Your task to perform on an android device: Open Wikipedia Image 0: 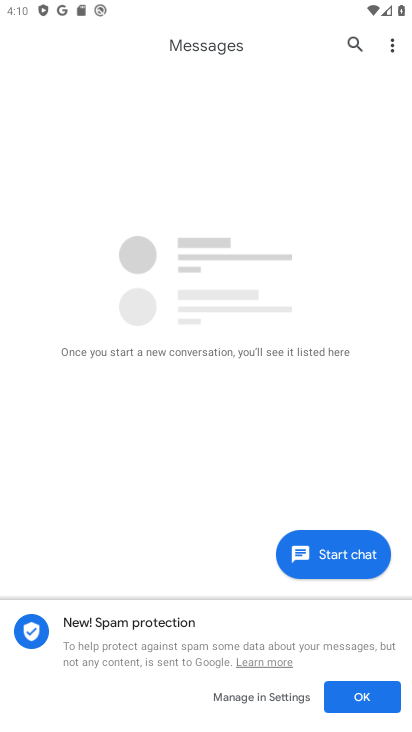
Step 0: press home button
Your task to perform on an android device: Open Wikipedia Image 1: 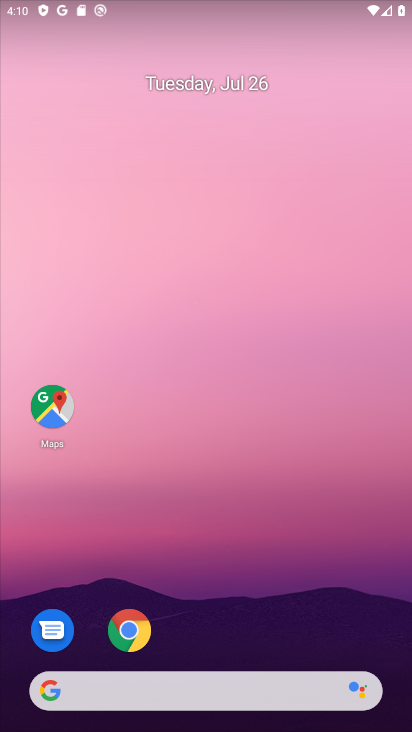
Step 1: drag from (292, 428) to (305, 12)
Your task to perform on an android device: Open Wikipedia Image 2: 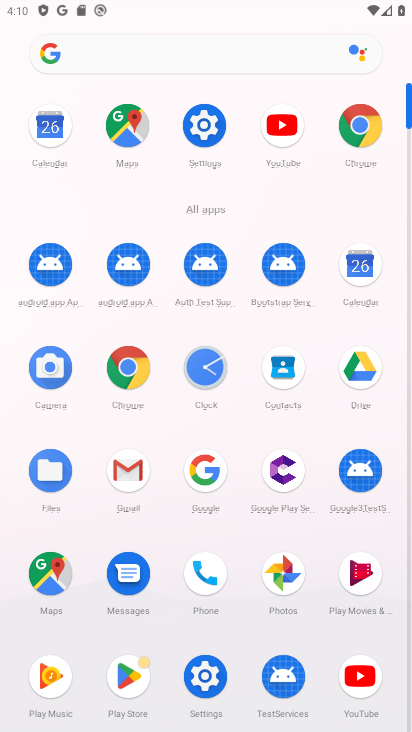
Step 2: click (357, 125)
Your task to perform on an android device: Open Wikipedia Image 3: 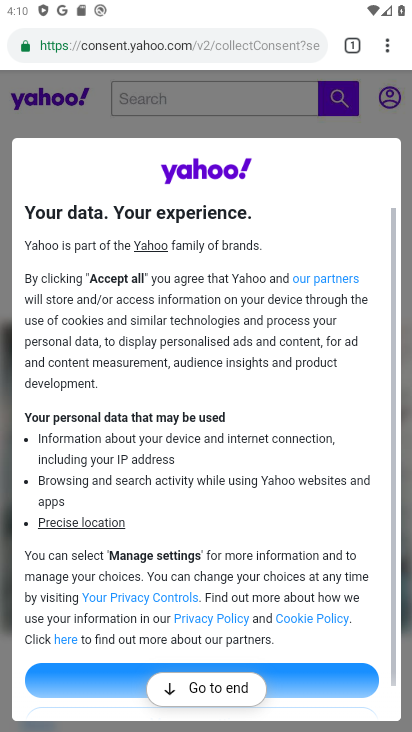
Step 3: click (240, 54)
Your task to perform on an android device: Open Wikipedia Image 4: 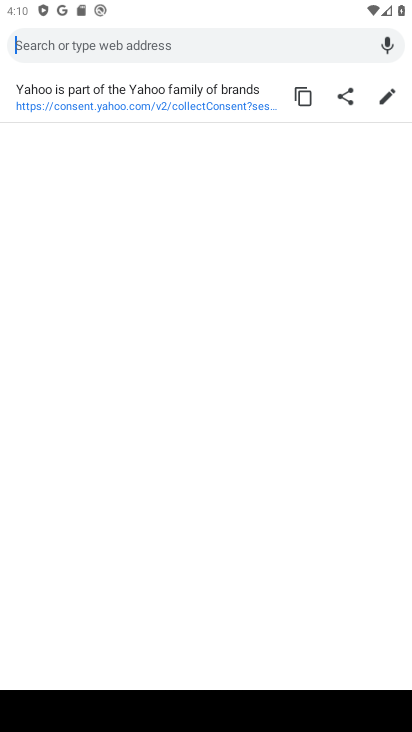
Step 4: type "wikipedia"
Your task to perform on an android device: Open Wikipedia Image 5: 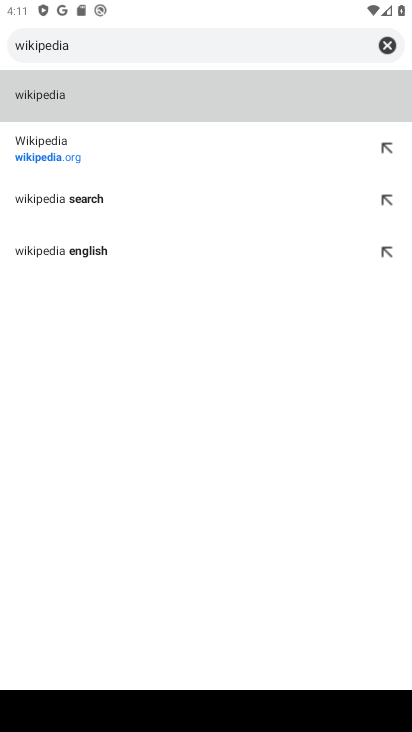
Step 5: click (68, 149)
Your task to perform on an android device: Open Wikipedia Image 6: 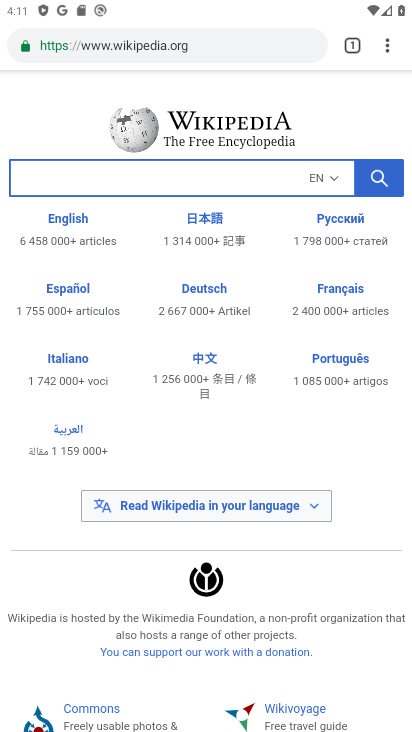
Step 6: task complete